Your task to perform on an android device: turn off airplane mode Image 0: 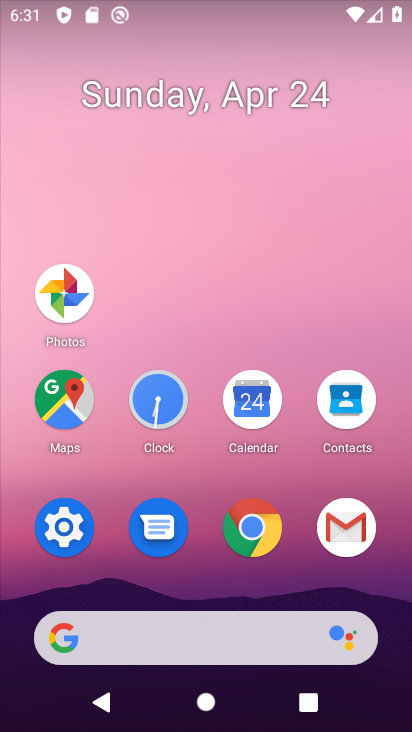
Step 0: click (56, 529)
Your task to perform on an android device: turn off airplane mode Image 1: 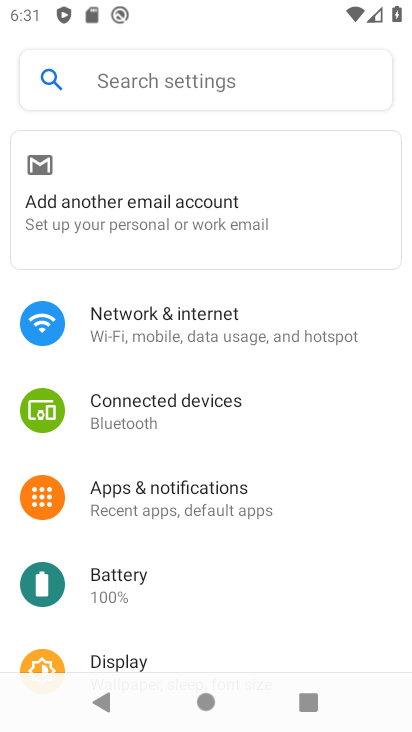
Step 1: click (142, 309)
Your task to perform on an android device: turn off airplane mode Image 2: 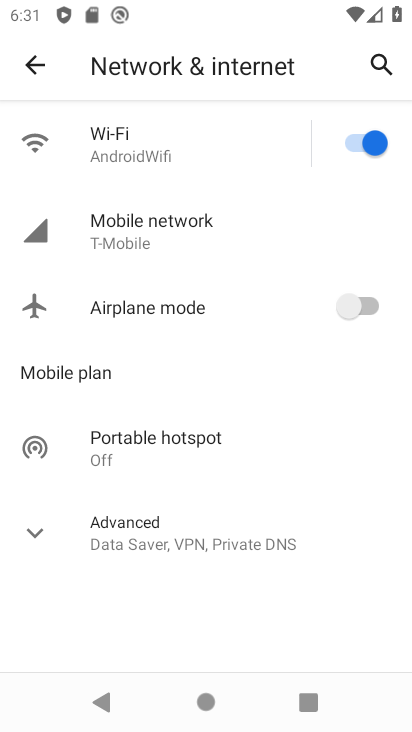
Step 2: task complete